Your task to perform on an android device: change notifications settings Image 0: 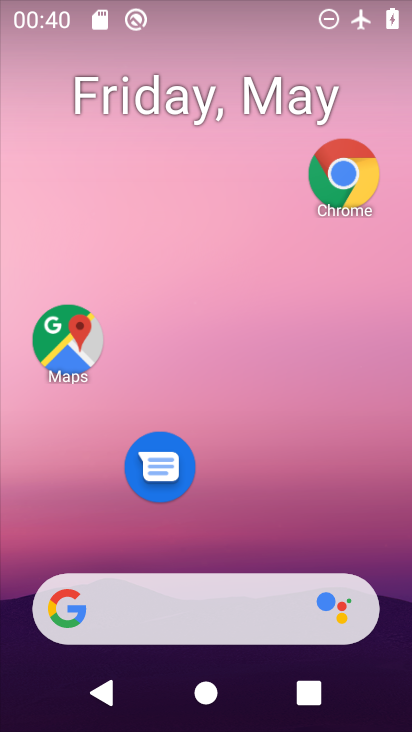
Step 0: drag from (277, 541) to (293, 222)
Your task to perform on an android device: change notifications settings Image 1: 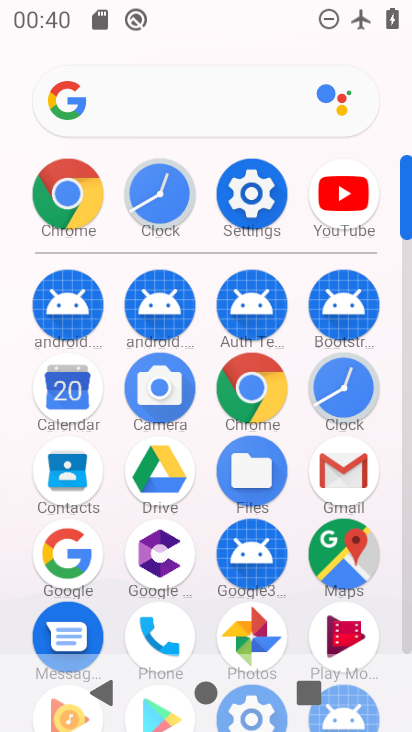
Step 1: click (250, 197)
Your task to perform on an android device: change notifications settings Image 2: 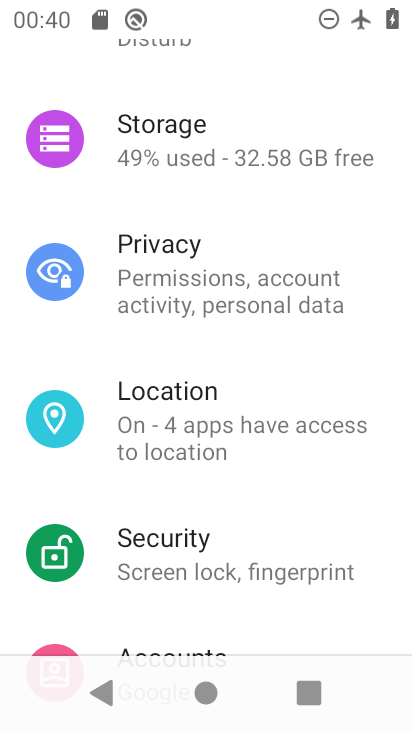
Step 2: drag from (237, 227) to (237, 341)
Your task to perform on an android device: change notifications settings Image 3: 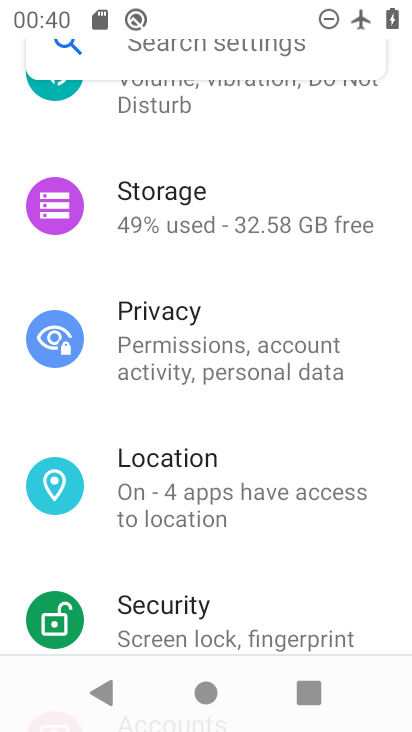
Step 3: drag from (133, 149) to (154, 297)
Your task to perform on an android device: change notifications settings Image 4: 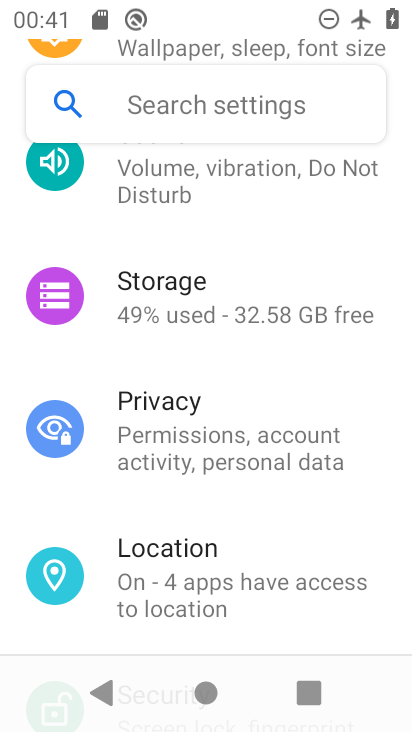
Step 4: drag from (221, 190) to (225, 430)
Your task to perform on an android device: change notifications settings Image 5: 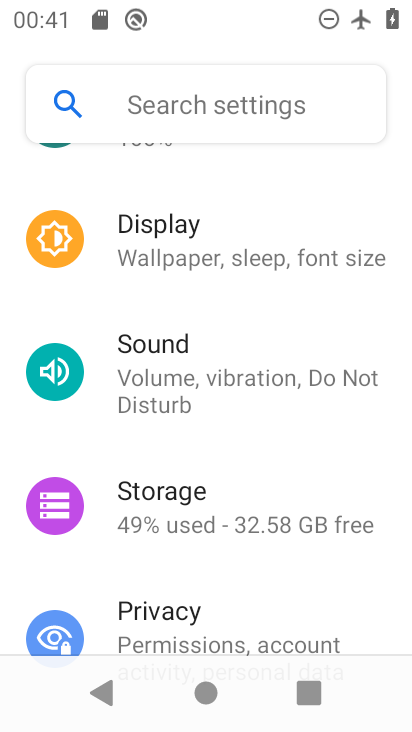
Step 5: drag from (220, 232) to (204, 575)
Your task to perform on an android device: change notifications settings Image 6: 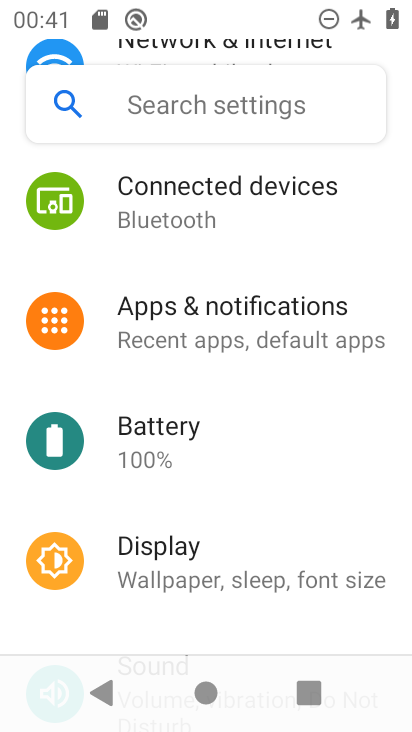
Step 6: click (175, 313)
Your task to perform on an android device: change notifications settings Image 7: 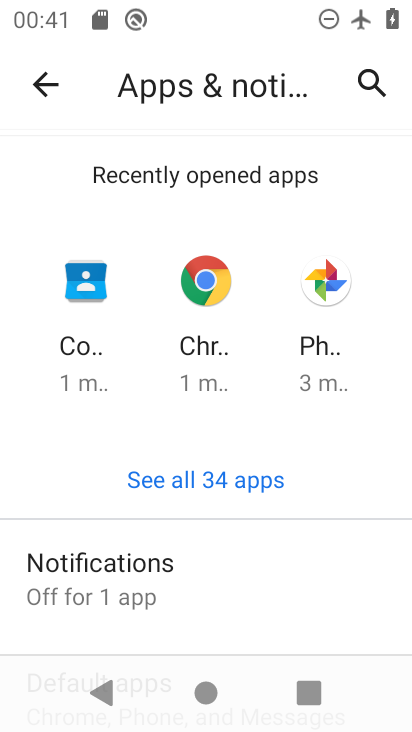
Step 7: click (188, 579)
Your task to perform on an android device: change notifications settings Image 8: 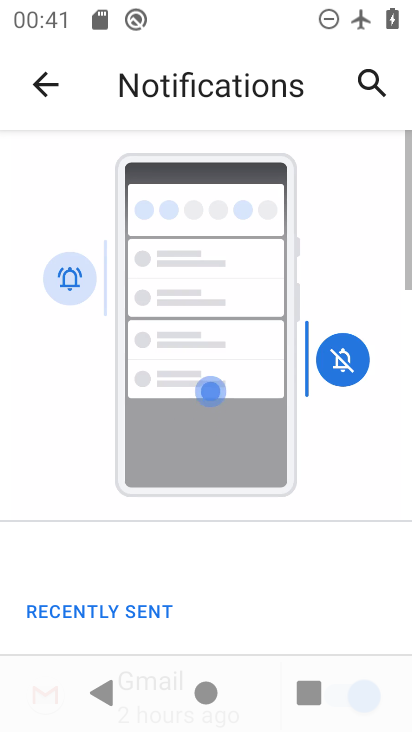
Step 8: drag from (202, 559) to (303, 195)
Your task to perform on an android device: change notifications settings Image 9: 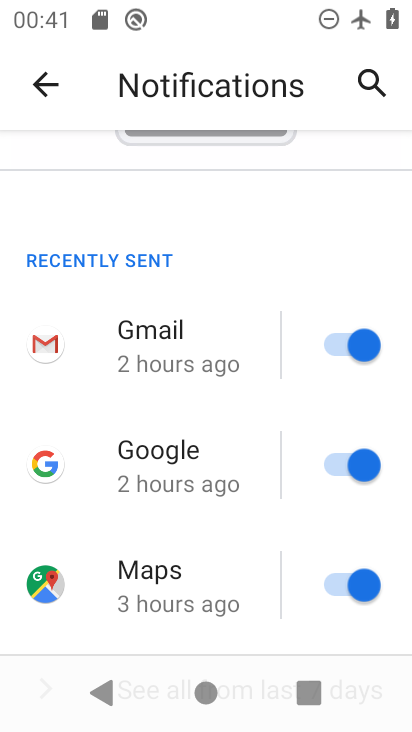
Step 9: click (201, 415)
Your task to perform on an android device: change notifications settings Image 10: 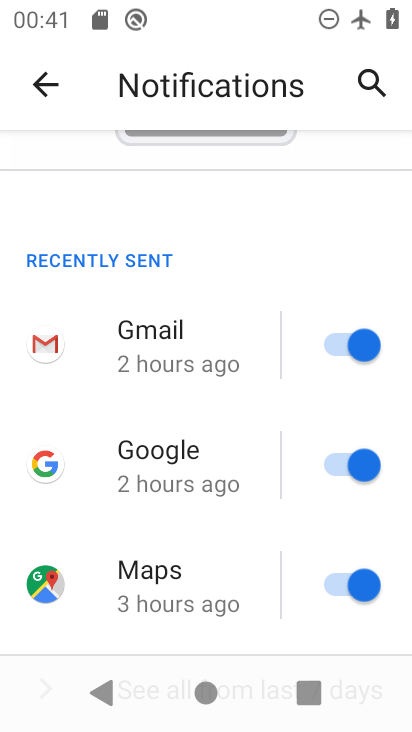
Step 10: drag from (218, 381) to (238, 303)
Your task to perform on an android device: change notifications settings Image 11: 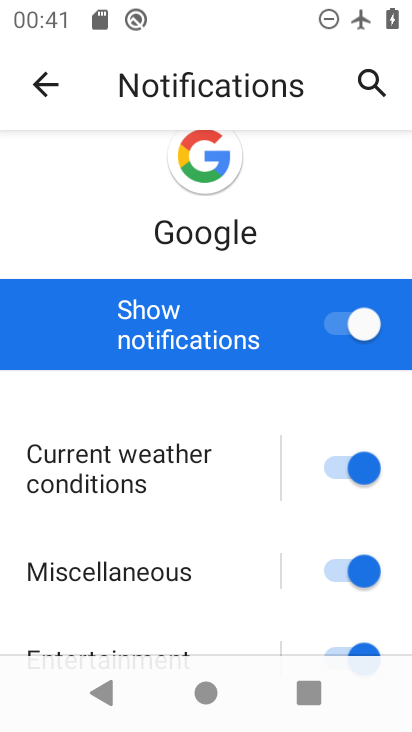
Step 11: click (326, 466)
Your task to perform on an android device: change notifications settings Image 12: 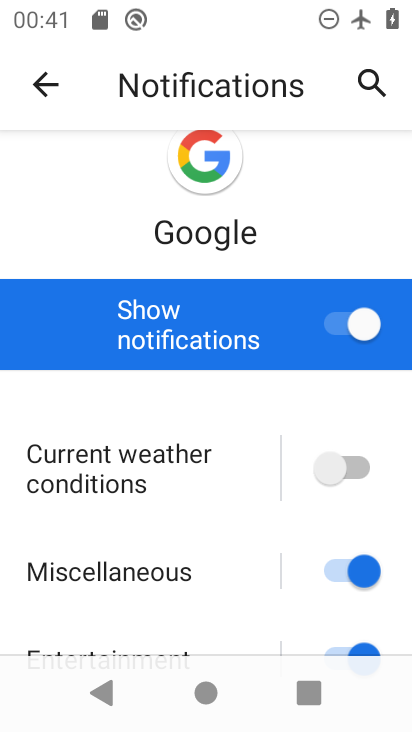
Step 12: drag from (197, 610) to (225, 259)
Your task to perform on an android device: change notifications settings Image 13: 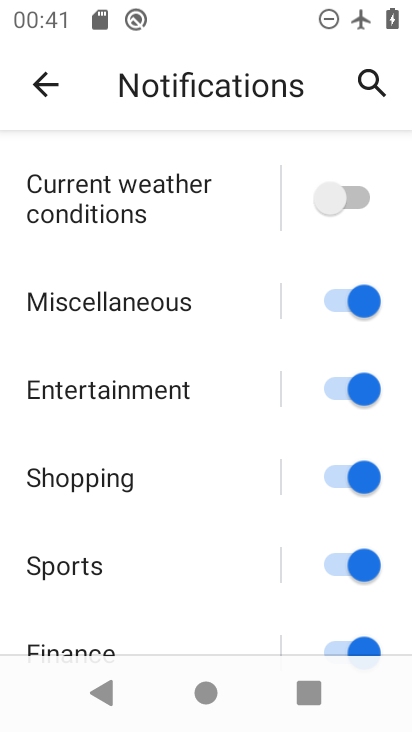
Step 13: click (346, 291)
Your task to perform on an android device: change notifications settings Image 14: 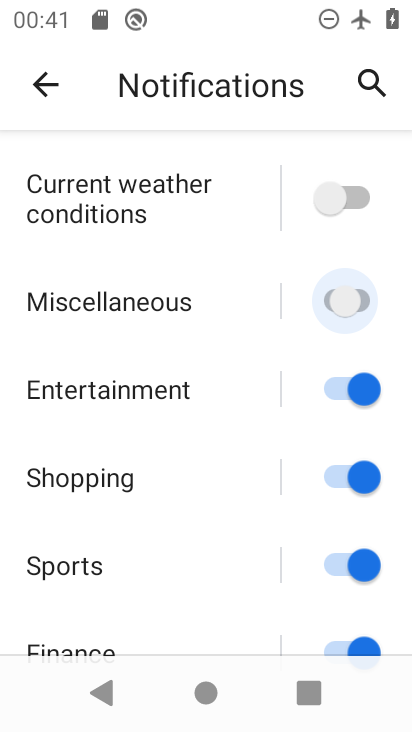
Step 14: click (322, 390)
Your task to perform on an android device: change notifications settings Image 15: 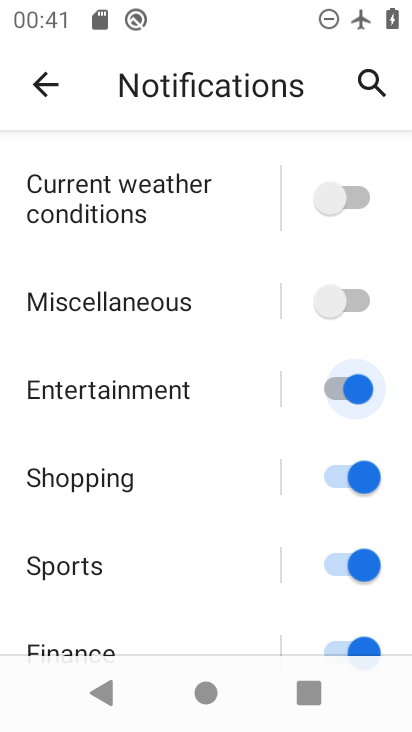
Step 15: click (333, 469)
Your task to perform on an android device: change notifications settings Image 16: 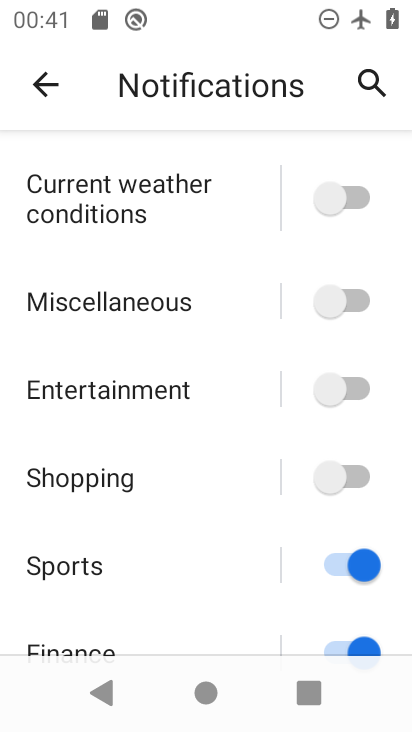
Step 16: click (330, 583)
Your task to perform on an android device: change notifications settings Image 17: 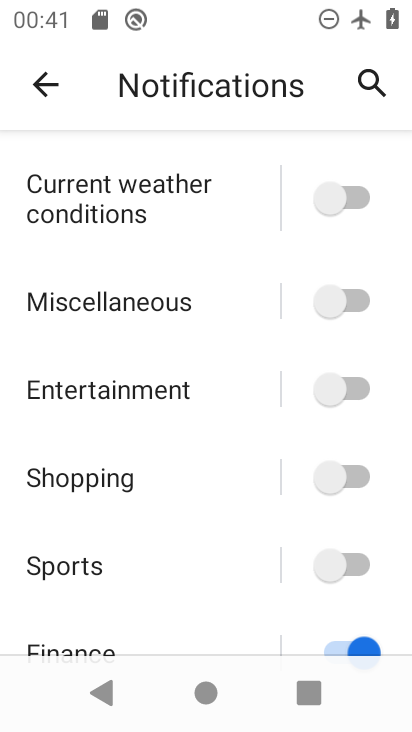
Step 17: drag from (203, 592) to (219, 239)
Your task to perform on an android device: change notifications settings Image 18: 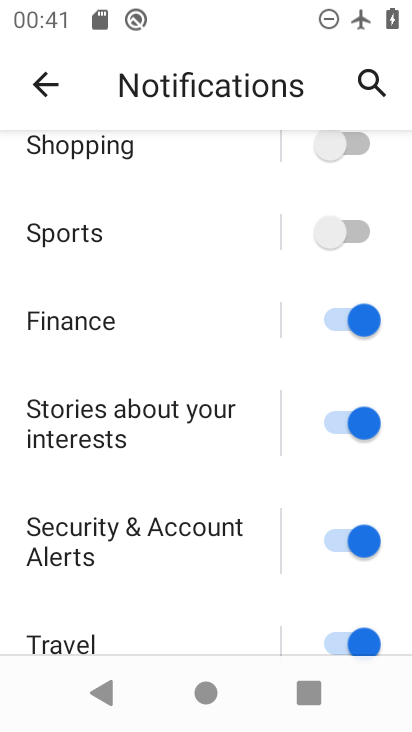
Step 18: click (352, 312)
Your task to perform on an android device: change notifications settings Image 19: 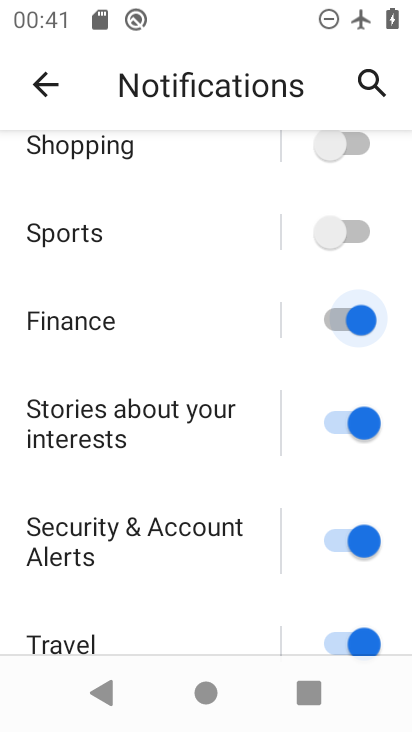
Step 19: click (347, 408)
Your task to perform on an android device: change notifications settings Image 20: 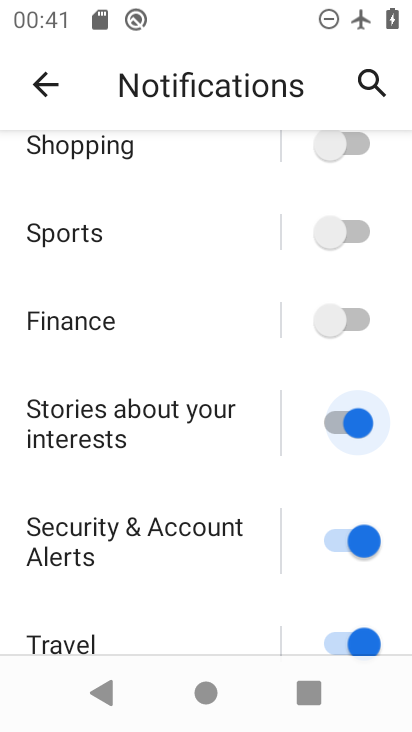
Step 20: click (344, 543)
Your task to perform on an android device: change notifications settings Image 21: 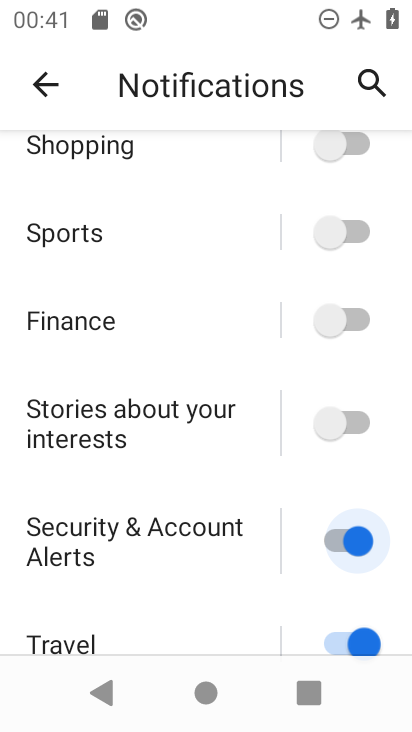
Step 21: click (341, 636)
Your task to perform on an android device: change notifications settings Image 22: 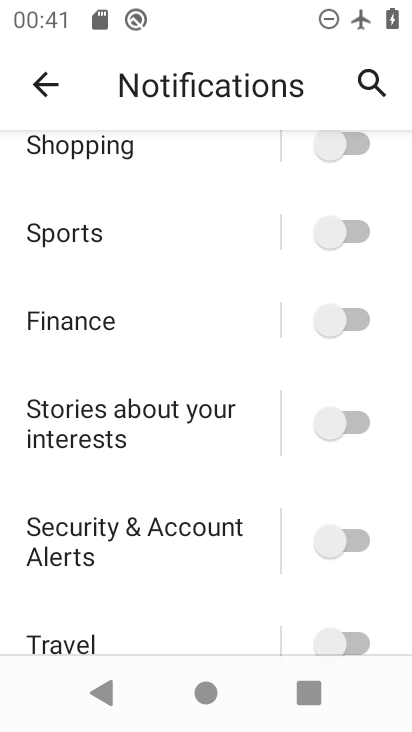
Step 22: drag from (205, 558) to (246, 161)
Your task to perform on an android device: change notifications settings Image 23: 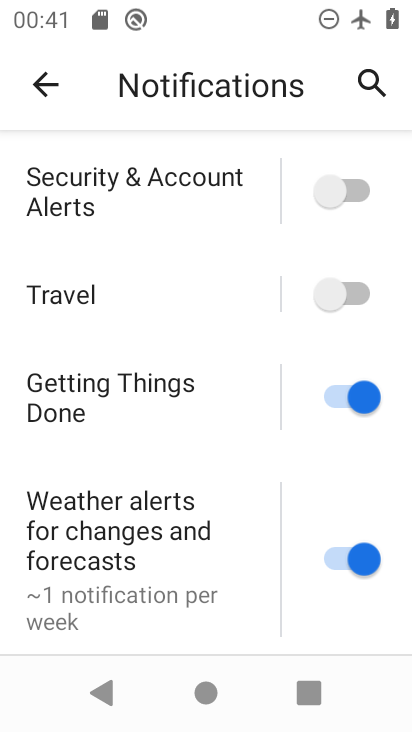
Step 23: click (358, 393)
Your task to perform on an android device: change notifications settings Image 24: 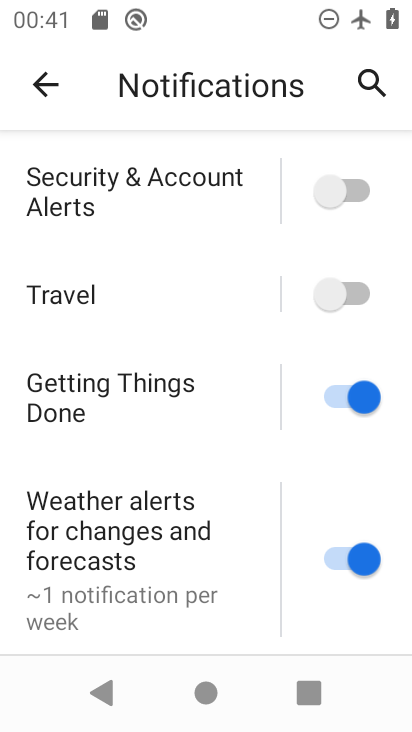
Step 24: click (367, 554)
Your task to perform on an android device: change notifications settings Image 25: 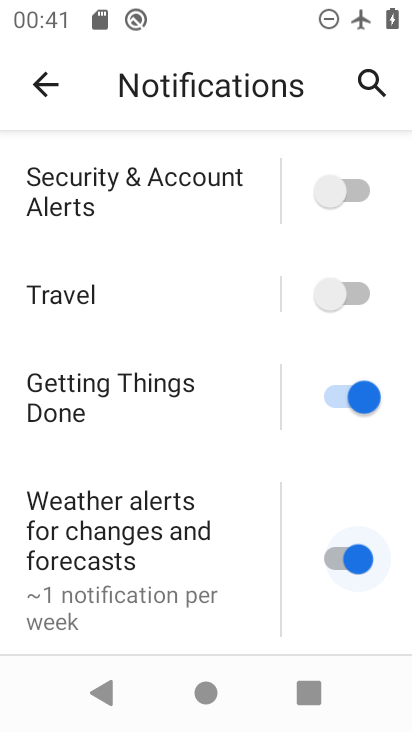
Step 25: click (365, 558)
Your task to perform on an android device: change notifications settings Image 26: 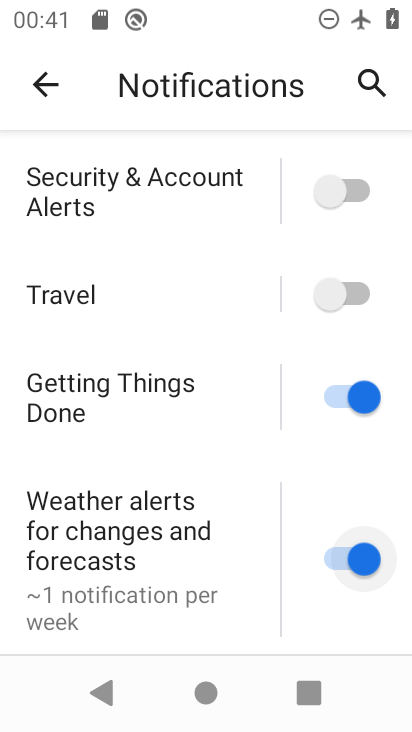
Step 26: task complete